Your task to perform on an android device: Open calendar and show me the second week of next month Image 0: 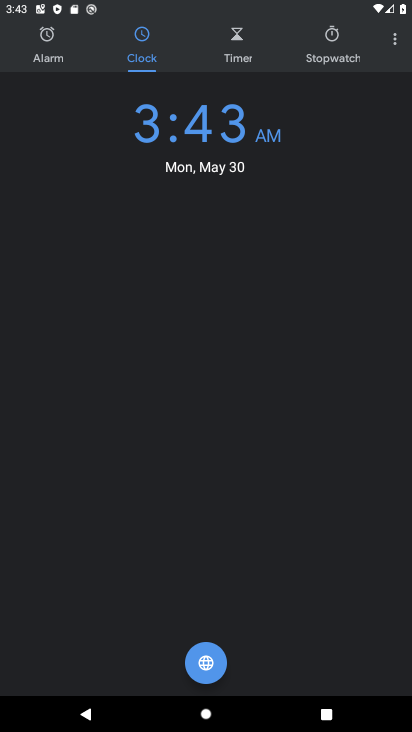
Step 0: press home button
Your task to perform on an android device: Open calendar and show me the second week of next month Image 1: 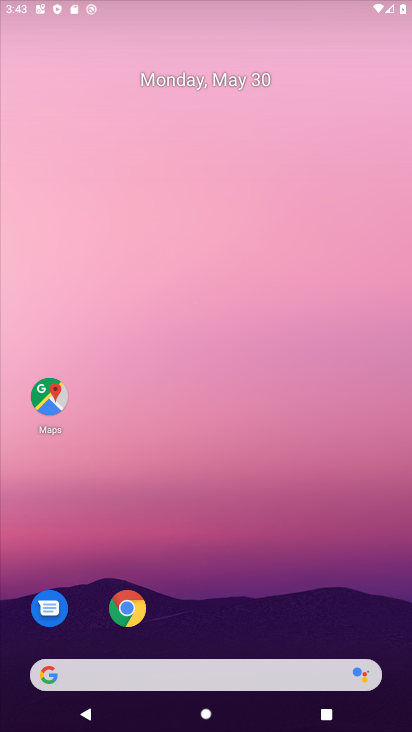
Step 1: drag from (267, 541) to (267, 173)
Your task to perform on an android device: Open calendar and show me the second week of next month Image 2: 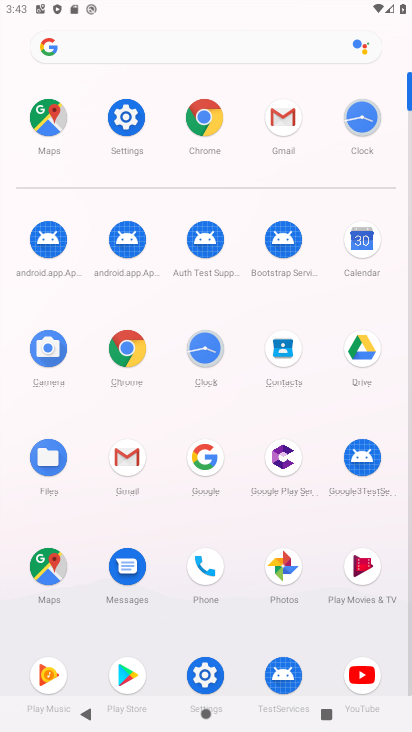
Step 2: click (363, 238)
Your task to perform on an android device: Open calendar and show me the second week of next month Image 3: 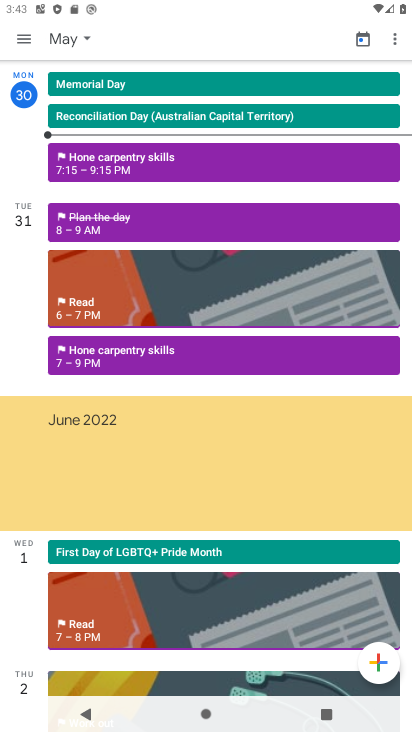
Step 3: click (18, 37)
Your task to perform on an android device: Open calendar and show me the second week of next month Image 4: 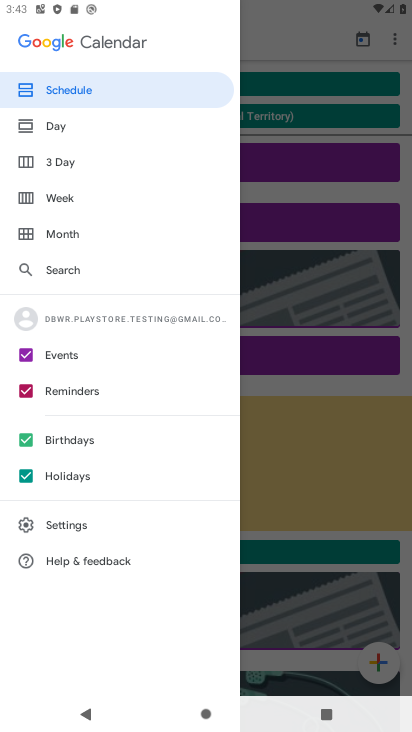
Step 4: click (79, 235)
Your task to perform on an android device: Open calendar and show me the second week of next month Image 5: 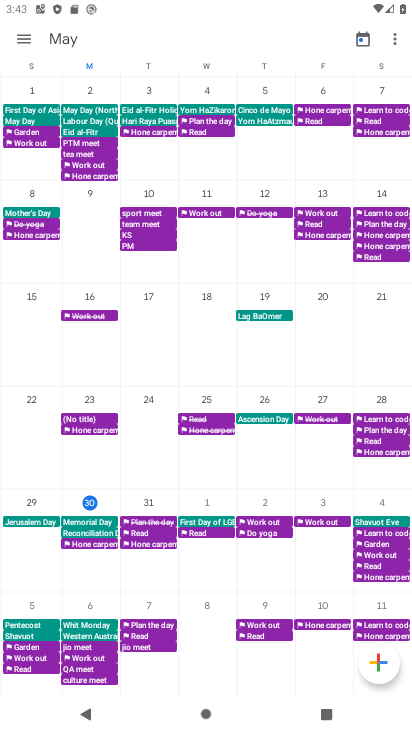
Step 5: task complete